Your task to perform on an android device: Go to Wikipedia Image 0: 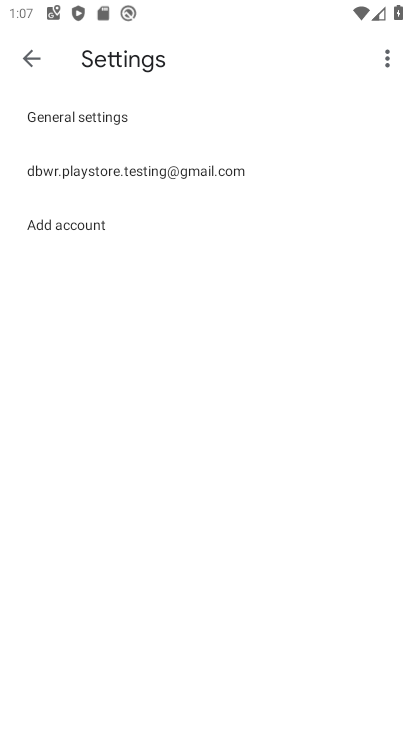
Step 0: press home button
Your task to perform on an android device: Go to Wikipedia Image 1: 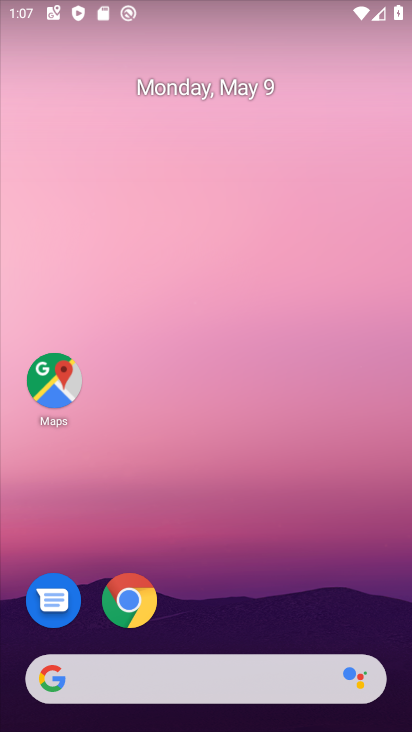
Step 1: click (121, 608)
Your task to perform on an android device: Go to Wikipedia Image 2: 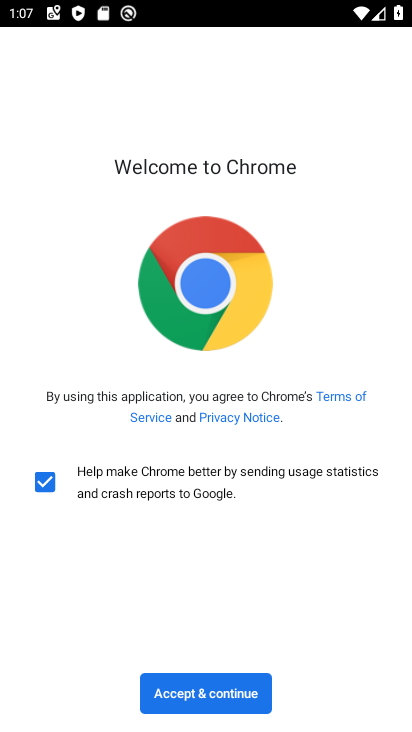
Step 2: click (221, 695)
Your task to perform on an android device: Go to Wikipedia Image 3: 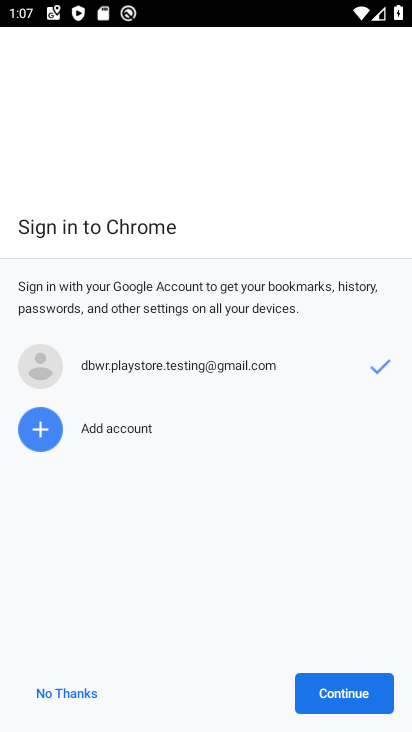
Step 3: click (325, 705)
Your task to perform on an android device: Go to Wikipedia Image 4: 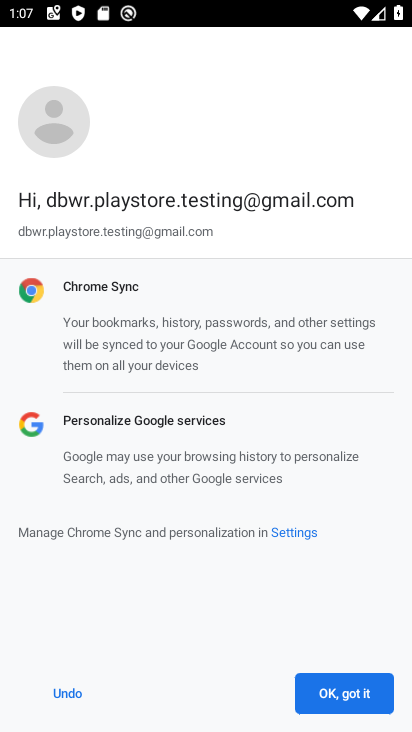
Step 4: click (325, 705)
Your task to perform on an android device: Go to Wikipedia Image 5: 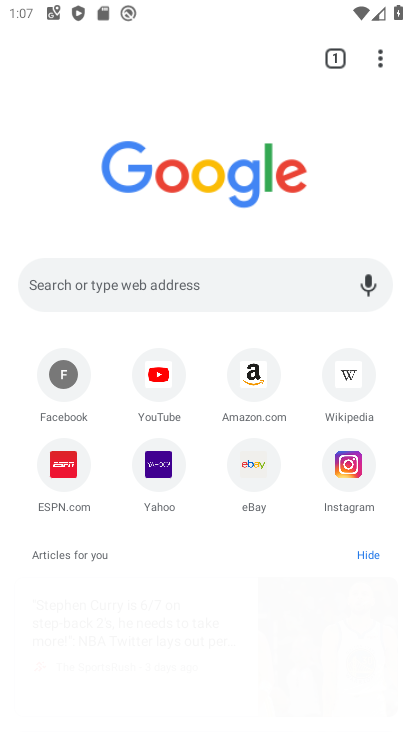
Step 5: click (340, 396)
Your task to perform on an android device: Go to Wikipedia Image 6: 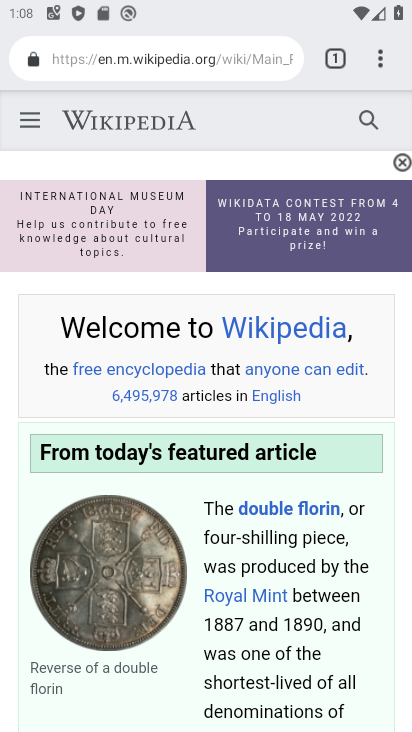
Step 6: task complete